Your task to perform on an android device: toggle location history Image 0: 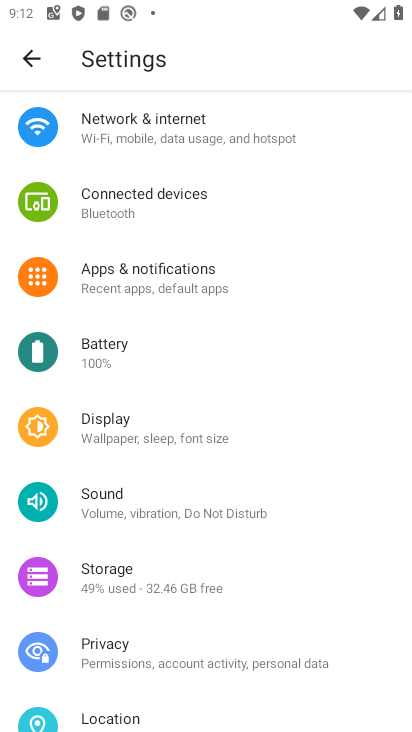
Step 0: press home button
Your task to perform on an android device: toggle location history Image 1: 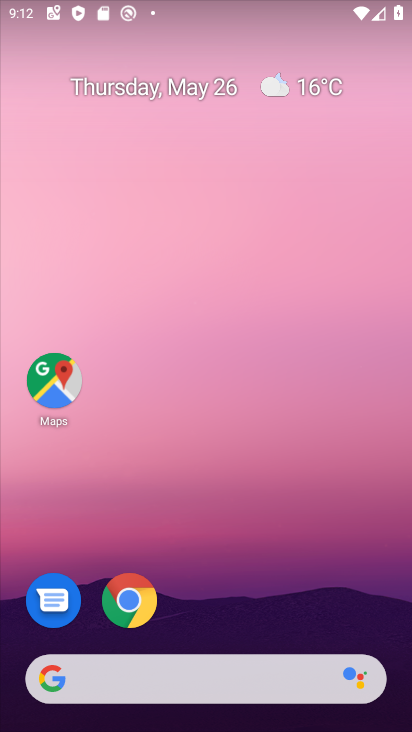
Step 1: drag from (205, 605) to (181, 7)
Your task to perform on an android device: toggle location history Image 2: 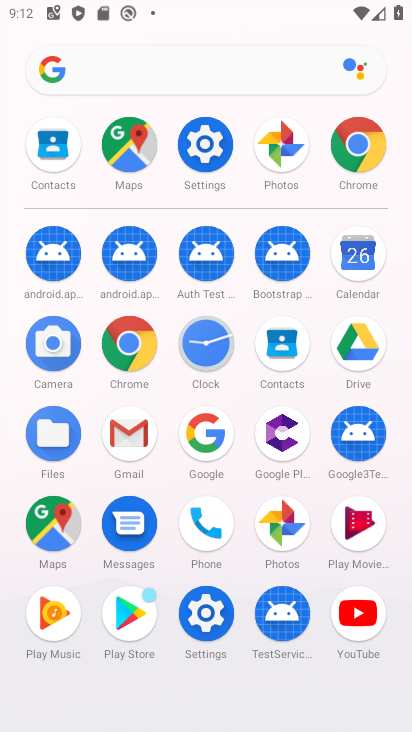
Step 2: click (205, 136)
Your task to perform on an android device: toggle location history Image 3: 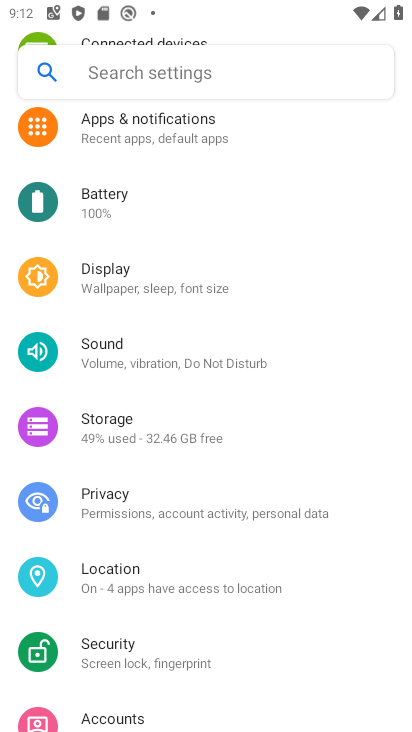
Step 3: click (177, 590)
Your task to perform on an android device: toggle location history Image 4: 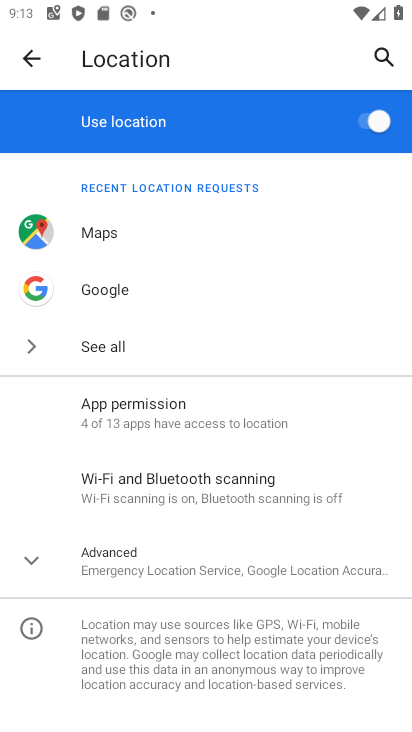
Step 4: click (149, 560)
Your task to perform on an android device: toggle location history Image 5: 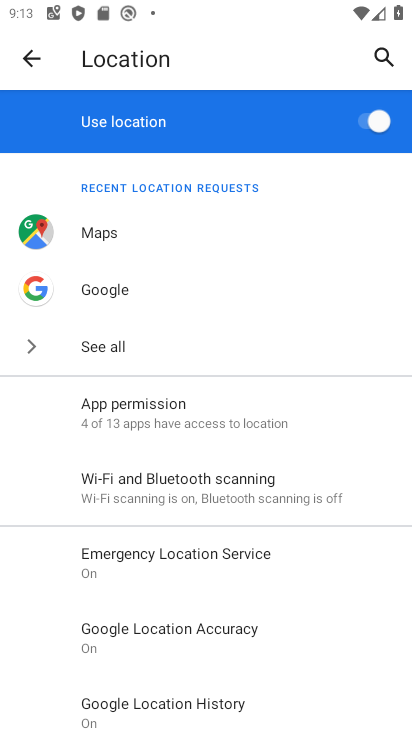
Step 5: click (128, 702)
Your task to perform on an android device: toggle location history Image 6: 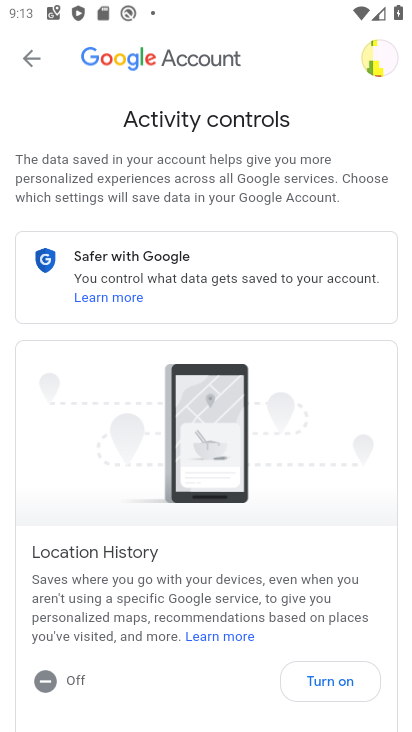
Step 6: drag from (128, 702) to (202, 265)
Your task to perform on an android device: toggle location history Image 7: 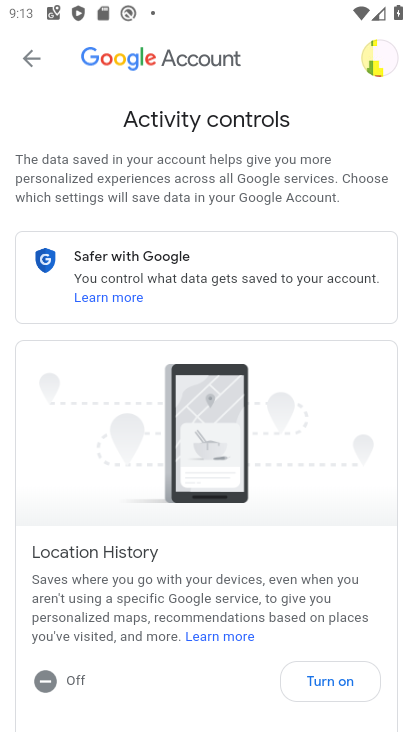
Step 7: click (327, 680)
Your task to perform on an android device: toggle location history Image 8: 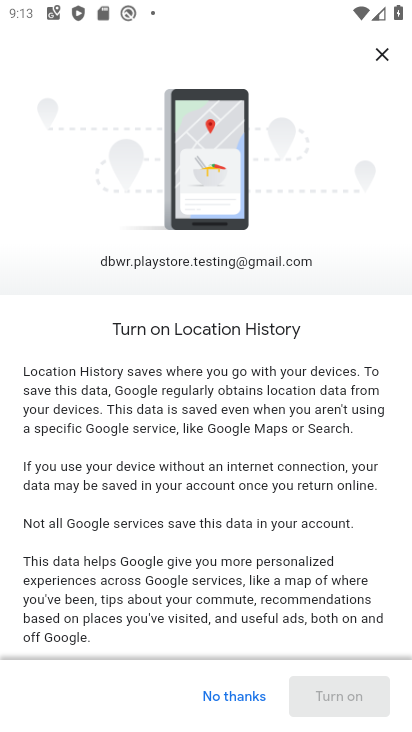
Step 8: drag from (233, 595) to (308, 7)
Your task to perform on an android device: toggle location history Image 9: 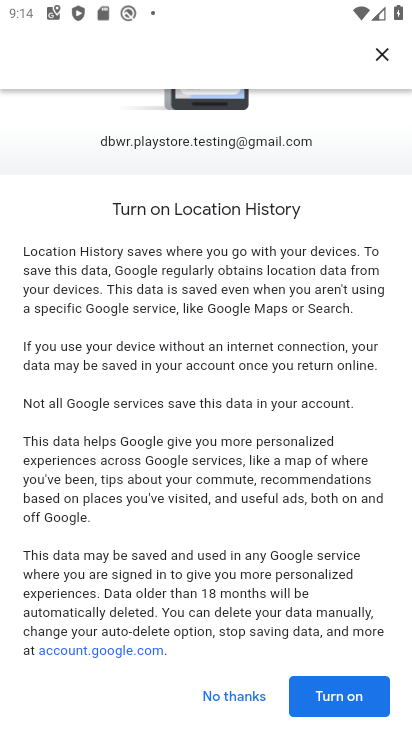
Step 9: click (342, 704)
Your task to perform on an android device: toggle location history Image 10: 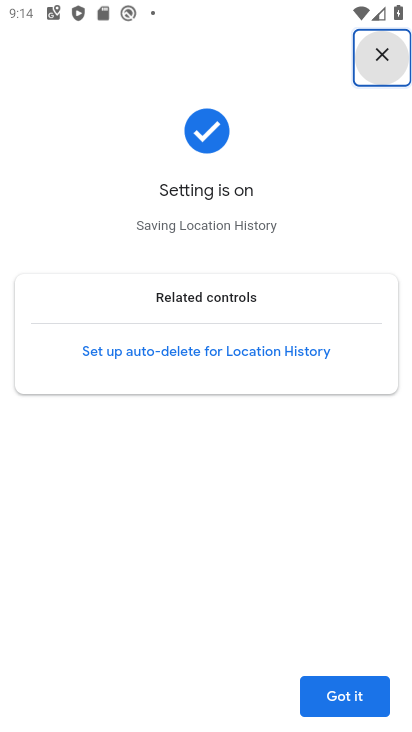
Step 10: click (362, 705)
Your task to perform on an android device: toggle location history Image 11: 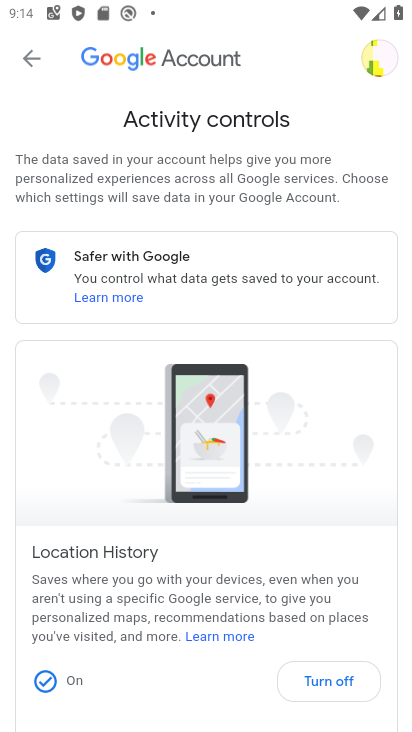
Step 11: task complete